Your task to perform on an android device: toggle notifications settings in the gmail app Image 0: 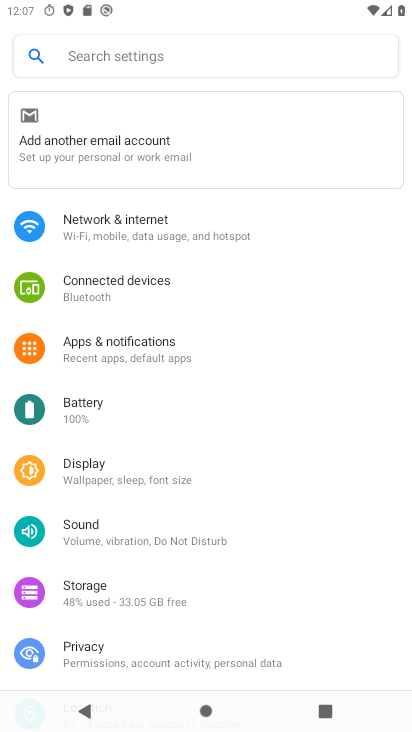
Step 0: press home button
Your task to perform on an android device: toggle notifications settings in the gmail app Image 1: 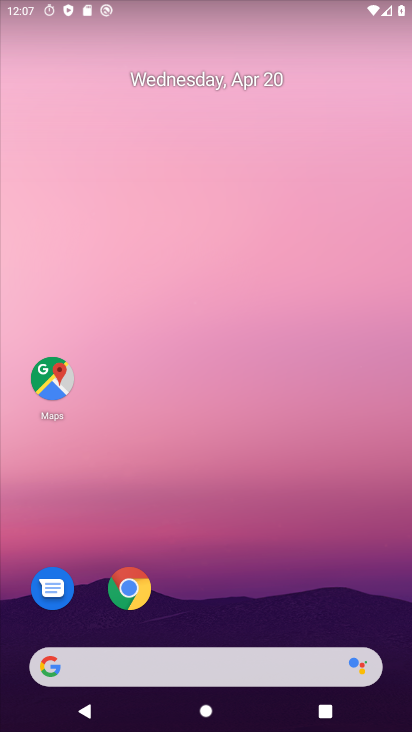
Step 1: drag from (213, 625) to (170, 86)
Your task to perform on an android device: toggle notifications settings in the gmail app Image 2: 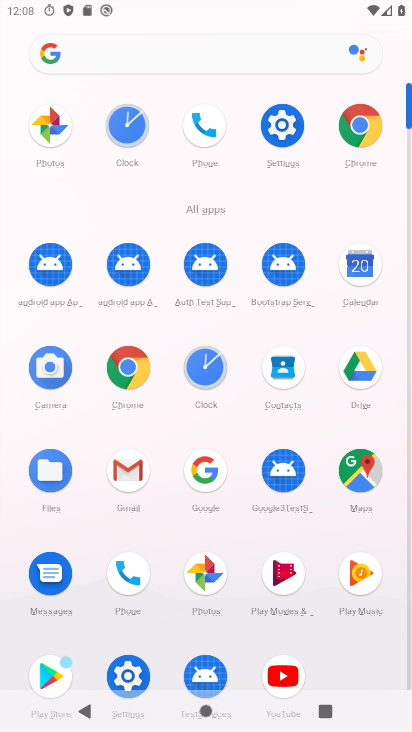
Step 2: click (119, 472)
Your task to perform on an android device: toggle notifications settings in the gmail app Image 3: 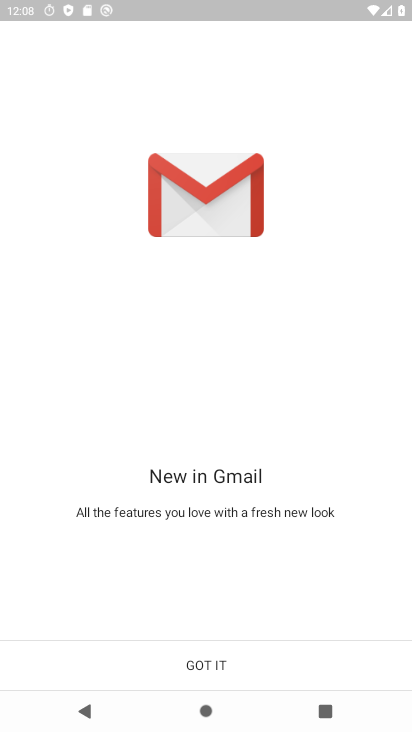
Step 3: click (182, 658)
Your task to perform on an android device: toggle notifications settings in the gmail app Image 4: 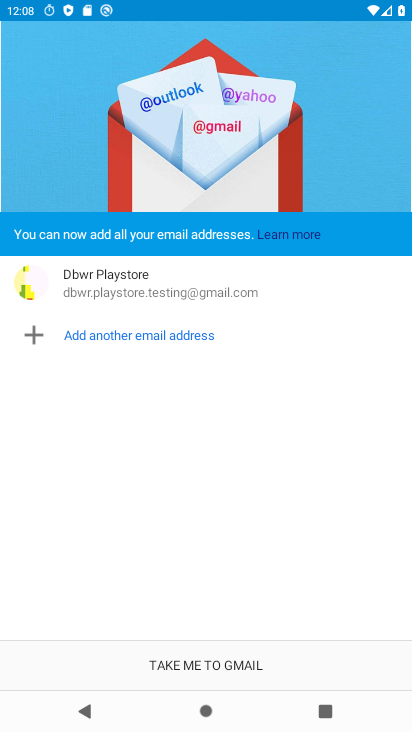
Step 4: click (182, 658)
Your task to perform on an android device: toggle notifications settings in the gmail app Image 5: 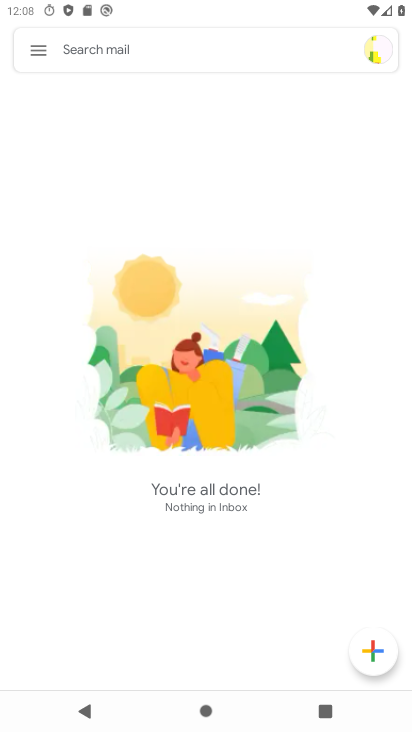
Step 5: click (31, 57)
Your task to perform on an android device: toggle notifications settings in the gmail app Image 6: 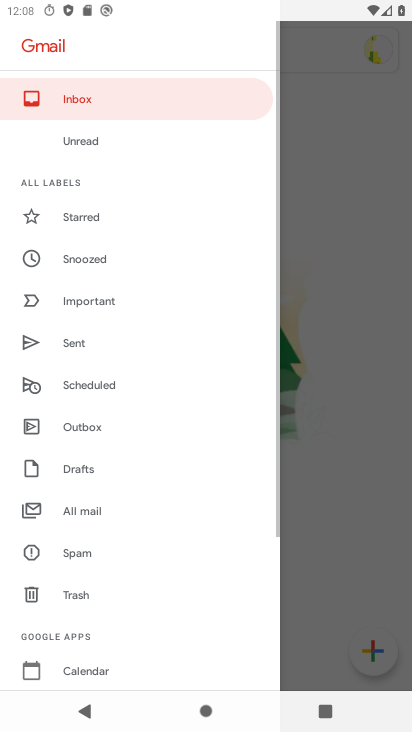
Step 6: drag from (129, 458) to (114, 145)
Your task to perform on an android device: toggle notifications settings in the gmail app Image 7: 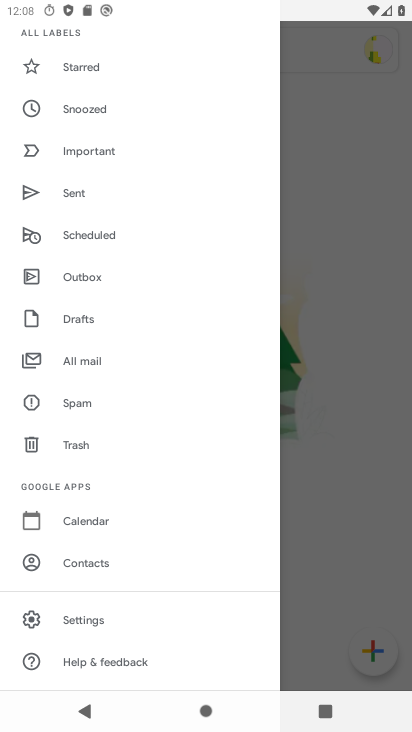
Step 7: click (72, 616)
Your task to perform on an android device: toggle notifications settings in the gmail app Image 8: 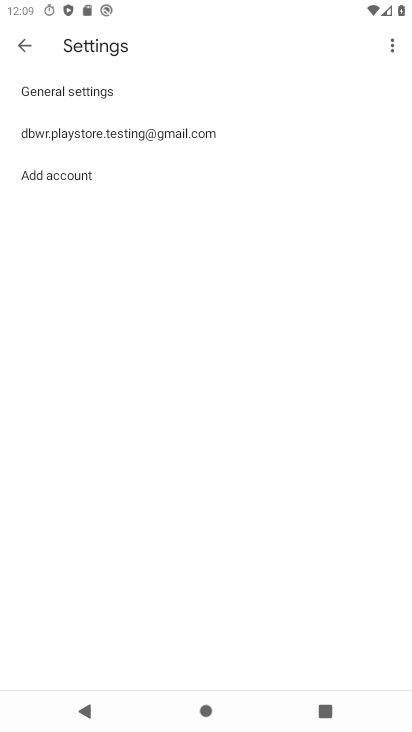
Step 8: click (64, 96)
Your task to perform on an android device: toggle notifications settings in the gmail app Image 9: 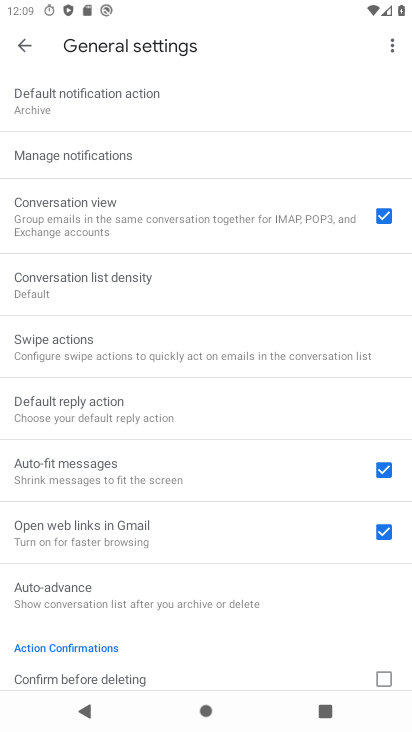
Step 9: click (89, 153)
Your task to perform on an android device: toggle notifications settings in the gmail app Image 10: 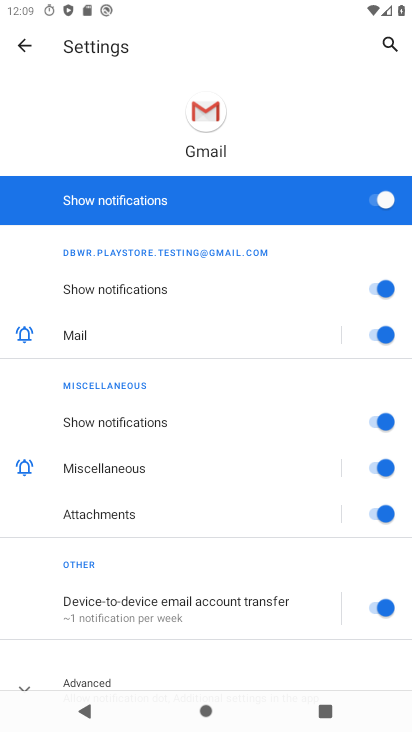
Step 10: click (361, 200)
Your task to perform on an android device: toggle notifications settings in the gmail app Image 11: 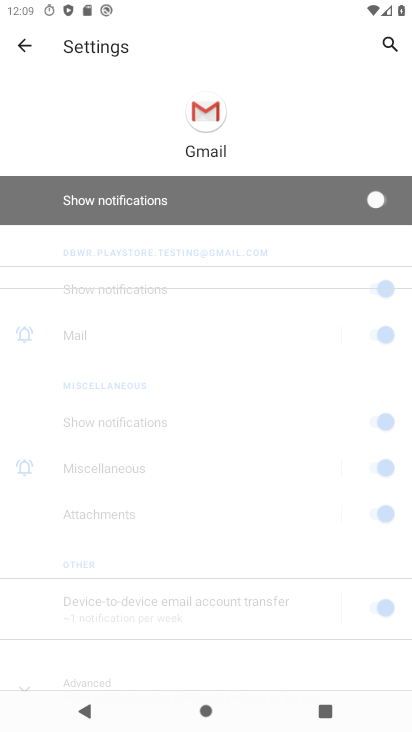
Step 11: task complete